Your task to perform on an android device: toggle wifi Image 0: 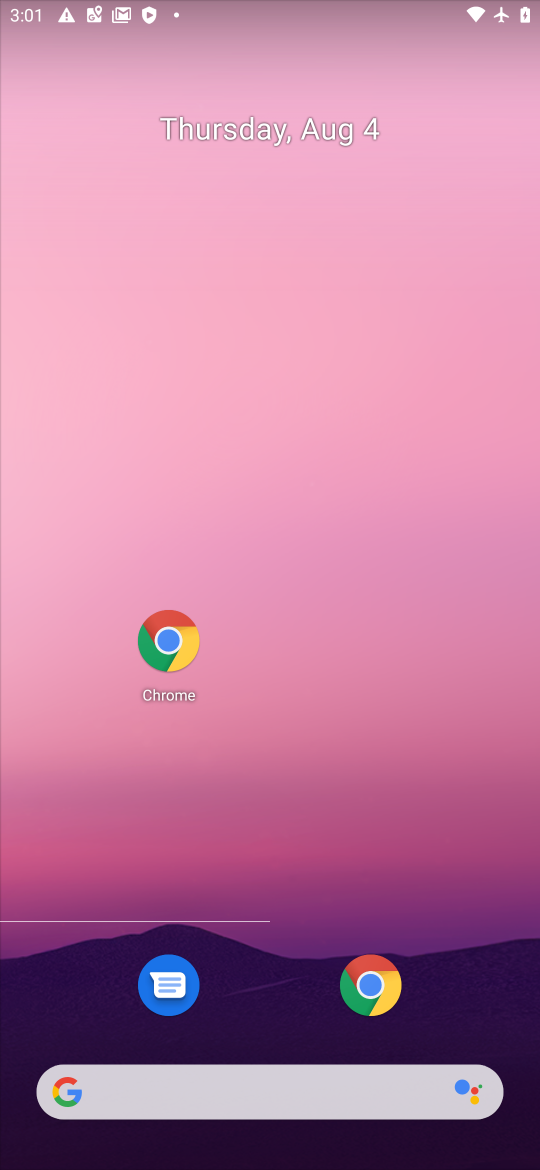
Step 0: press back button
Your task to perform on an android device: toggle wifi Image 1: 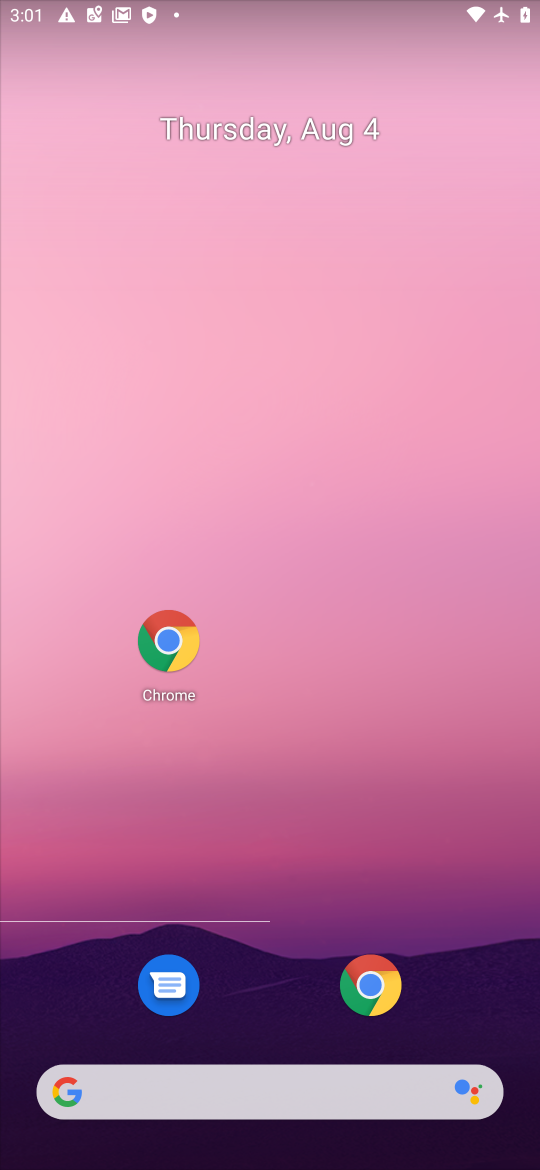
Step 1: click (257, 279)
Your task to perform on an android device: toggle wifi Image 2: 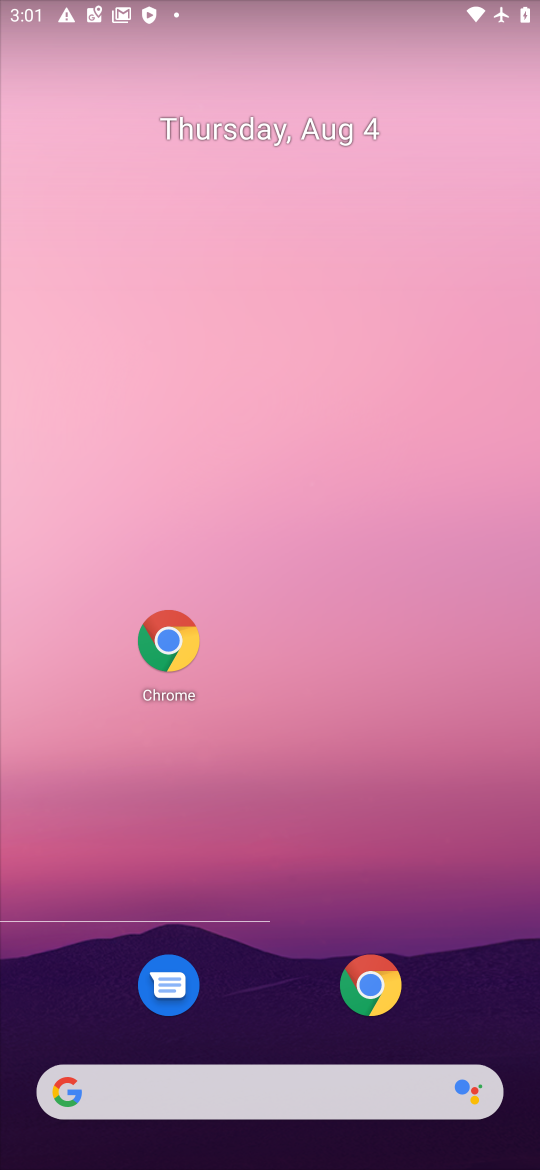
Step 2: drag from (251, 1128) to (198, 218)
Your task to perform on an android device: toggle wifi Image 3: 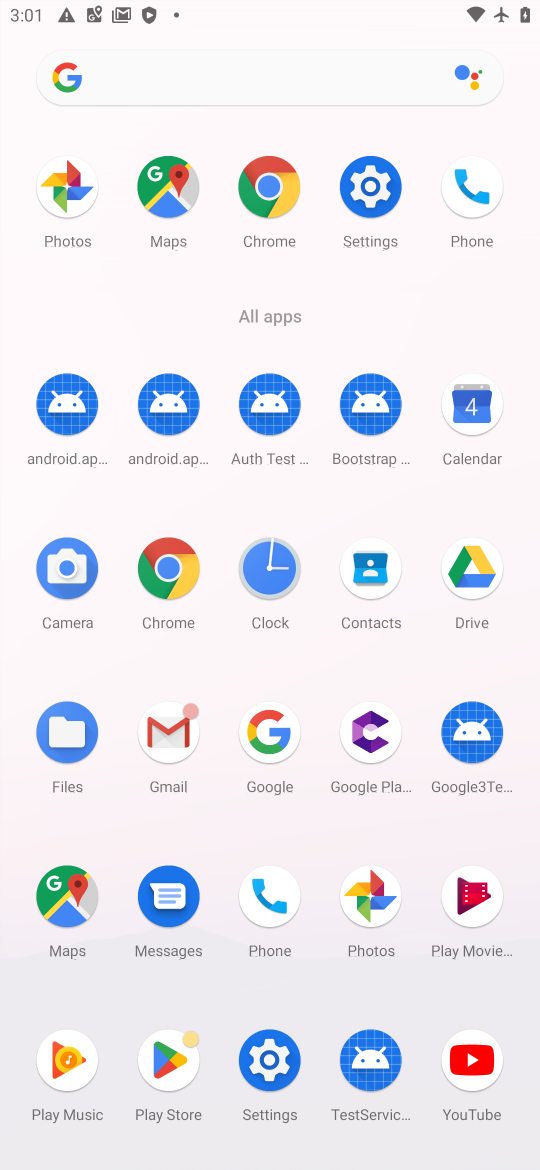
Step 3: click (364, 194)
Your task to perform on an android device: toggle wifi Image 4: 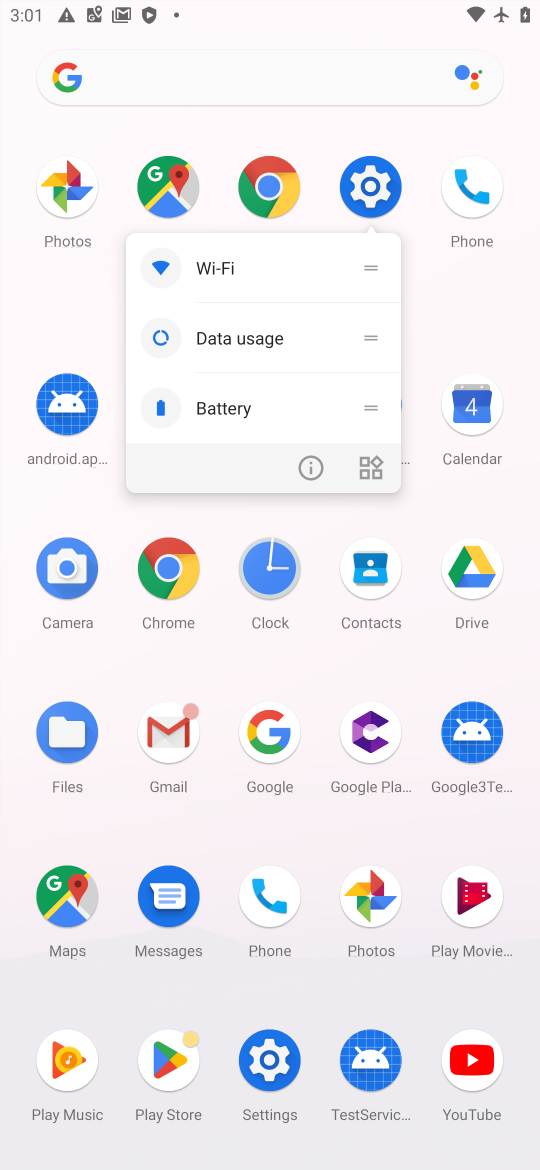
Step 4: click (357, 207)
Your task to perform on an android device: toggle wifi Image 5: 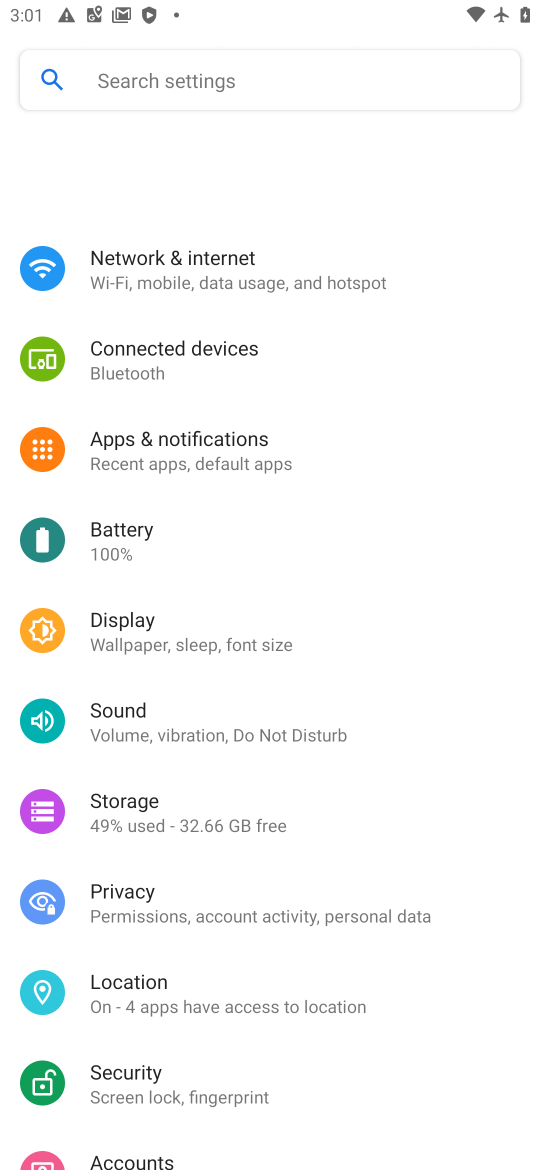
Step 5: click (361, 201)
Your task to perform on an android device: toggle wifi Image 6: 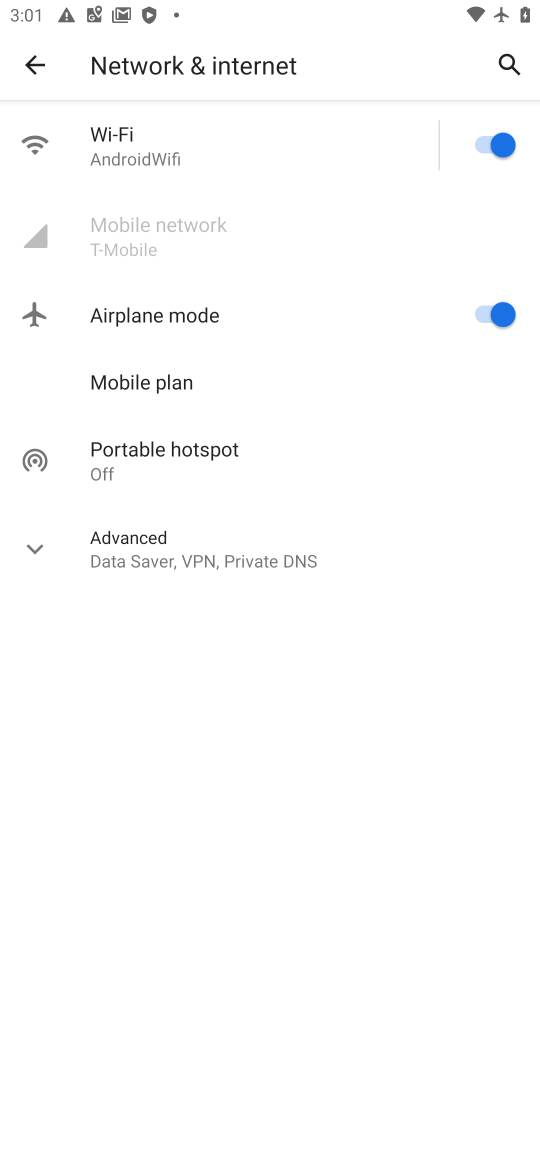
Step 6: click (138, 151)
Your task to perform on an android device: toggle wifi Image 7: 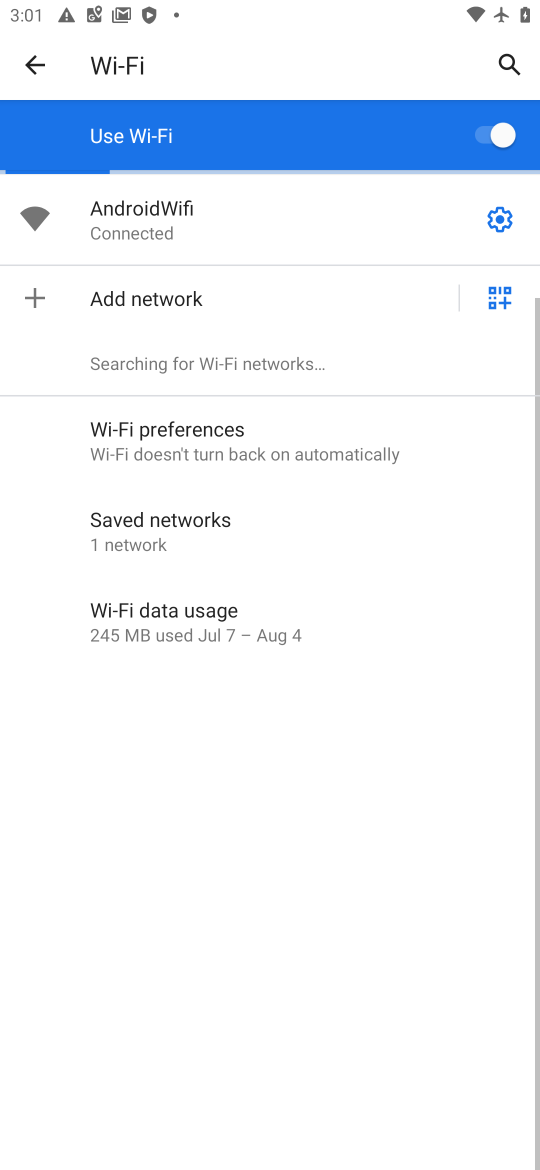
Step 7: task complete